Your task to perform on an android device: Check the news Image 0: 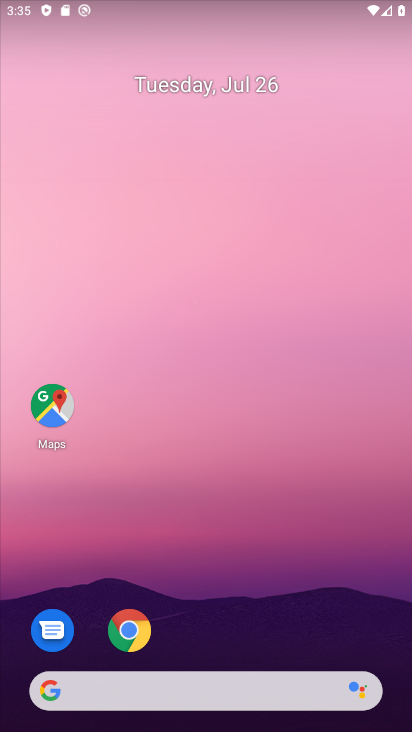
Step 0: click (121, 162)
Your task to perform on an android device: Check the news Image 1: 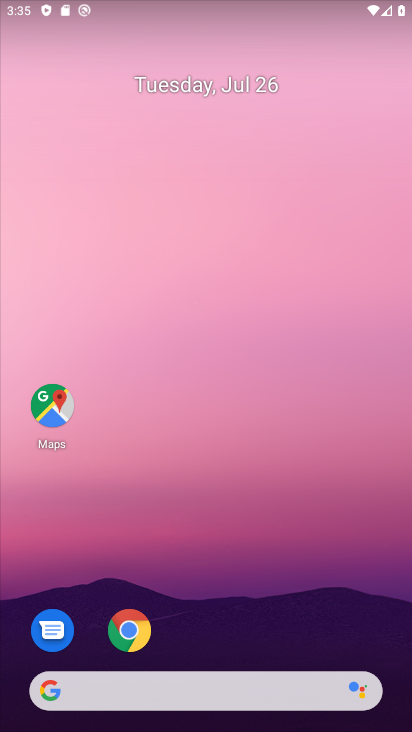
Step 1: drag from (223, 500) to (187, 208)
Your task to perform on an android device: Check the news Image 2: 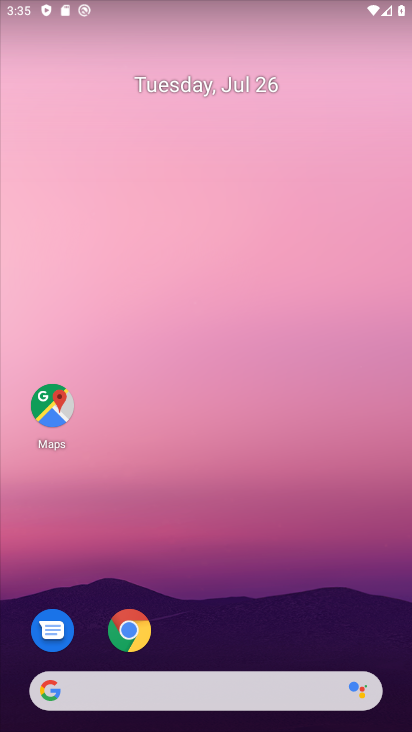
Step 2: drag from (219, 548) to (219, 175)
Your task to perform on an android device: Check the news Image 3: 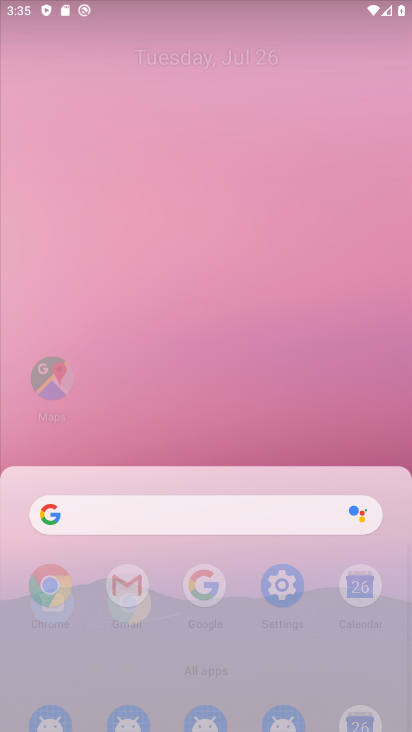
Step 3: drag from (200, 601) to (262, 40)
Your task to perform on an android device: Check the news Image 4: 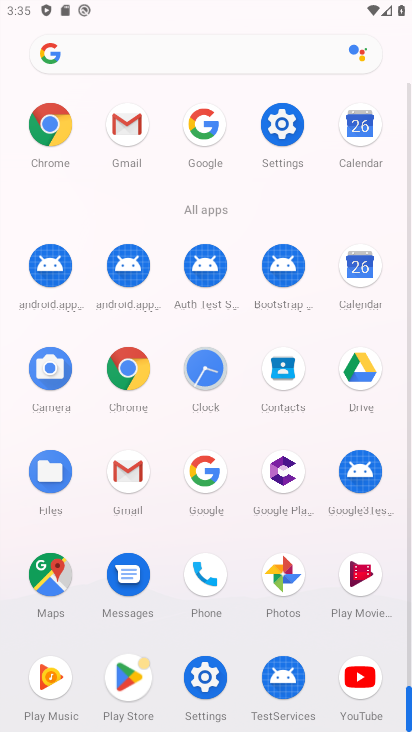
Step 4: drag from (264, 474) to (301, 65)
Your task to perform on an android device: Check the news Image 5: 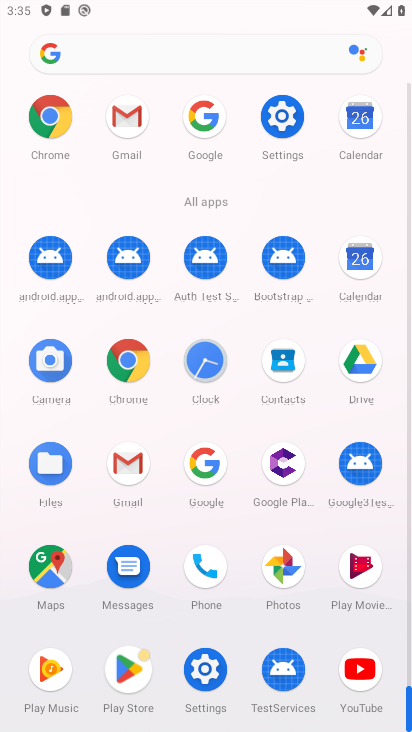
Step 5: click (52, 117)
Your task to perform on an android device: Check the news Image 6: 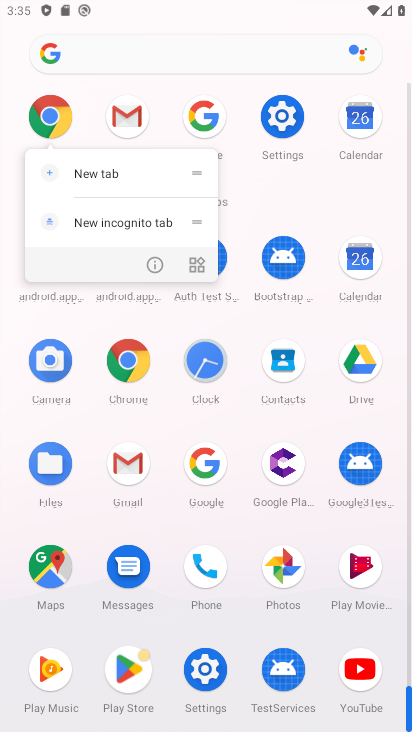
Step 6: click (53, 117)
Your task to perform on an android device: Check the news Image 7: 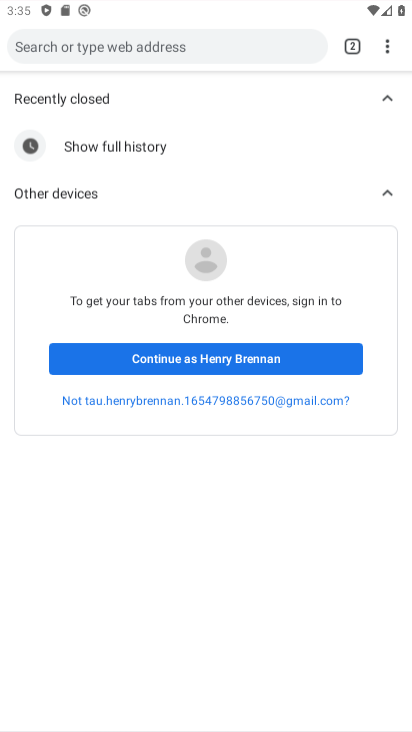
Step 7: click (60, 121)
Your task to perform on an android device: Check the news Image 8: 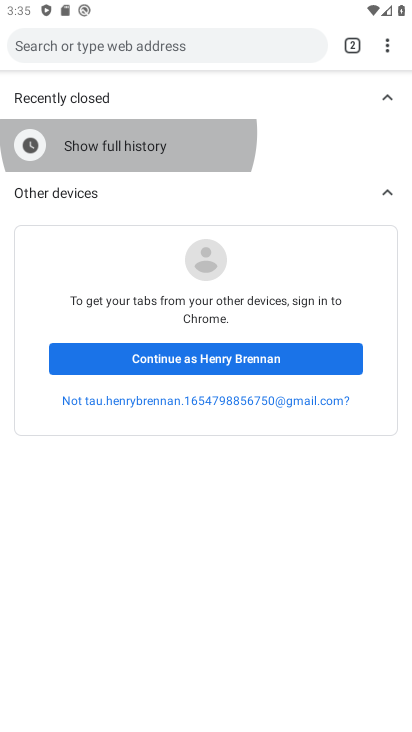
Step 8: click (60, 120)
Your task to perform on an android device: Check the news Image 9: 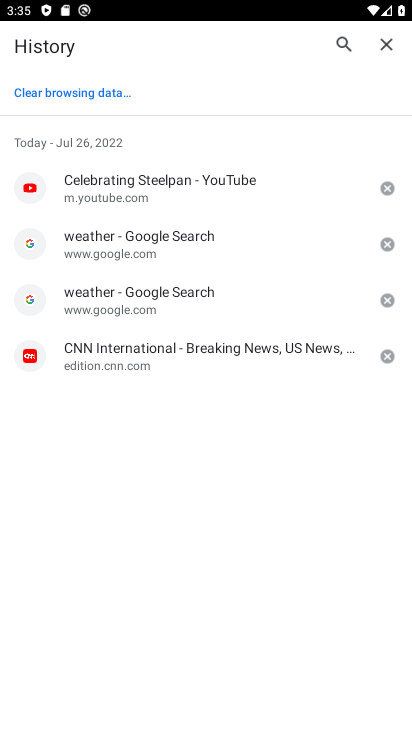
Step 9: click (384, 44)
Your task to perform on an android device: Check the news Image 10: 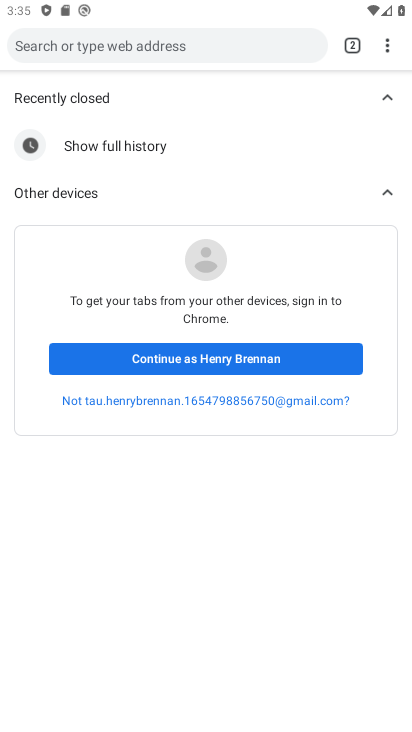
Step 10: click (386, 192)
Your task to perform on an android device: Check the news Image 11: 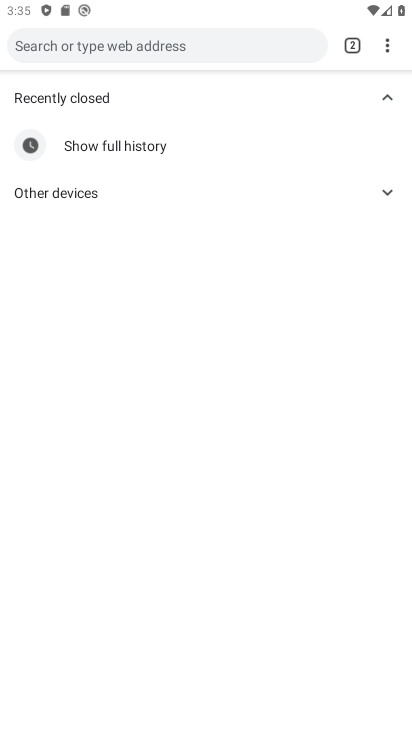
Step 11: press back button
Your task to perform on an android device: Check the news Image 12: 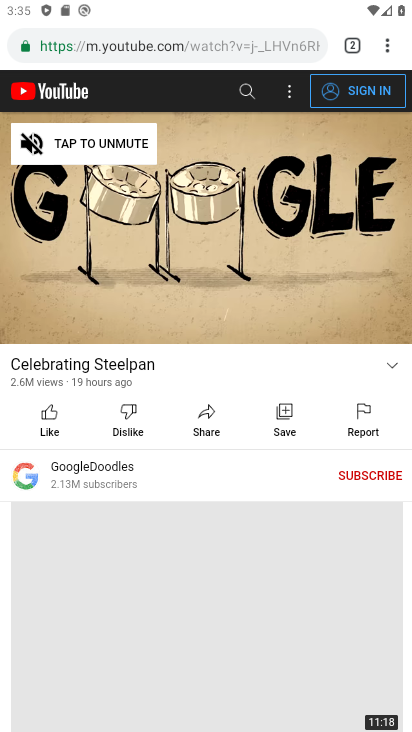
Step 12: drag from (387, 45) to (236, 85)
Your task to perform on an android device: Check the news Image 13: 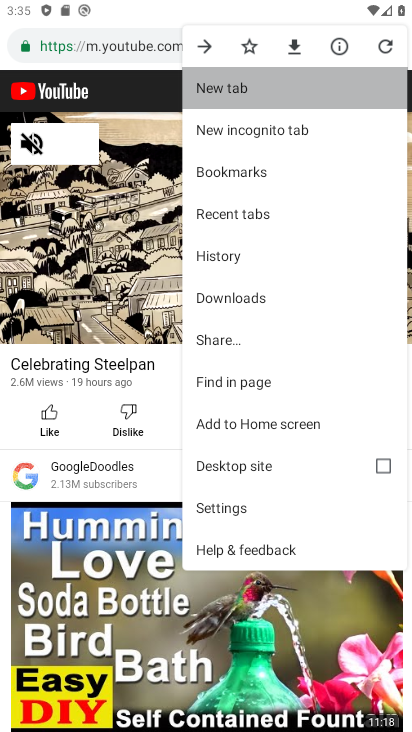
Step 13: click (236, 86)
Your task to perform on an android device: Check the news Image 14: 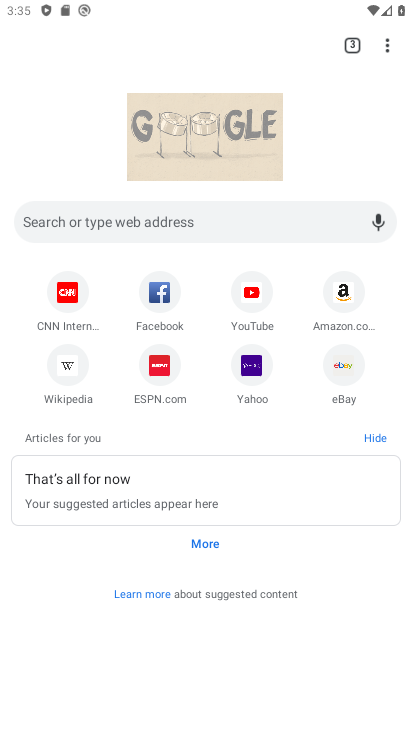
Step 14: task complete